Your task to perform on an android device: Search for Italian restaurants on Maps Image 0: 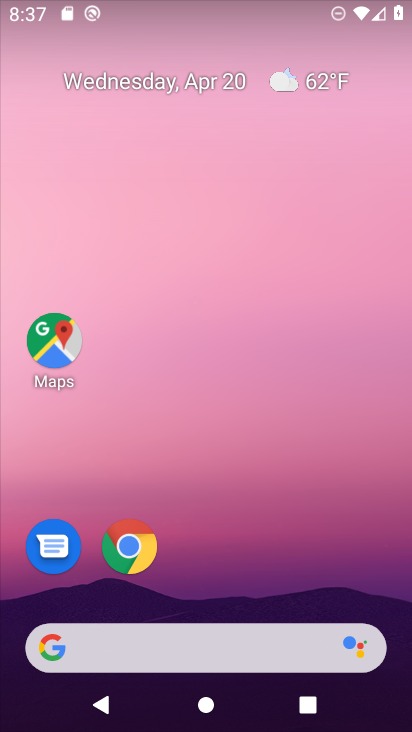
Step 0: click (57, 342)
Your task to perform on an android device: Search for Italian restaurants on Maps Image 1: 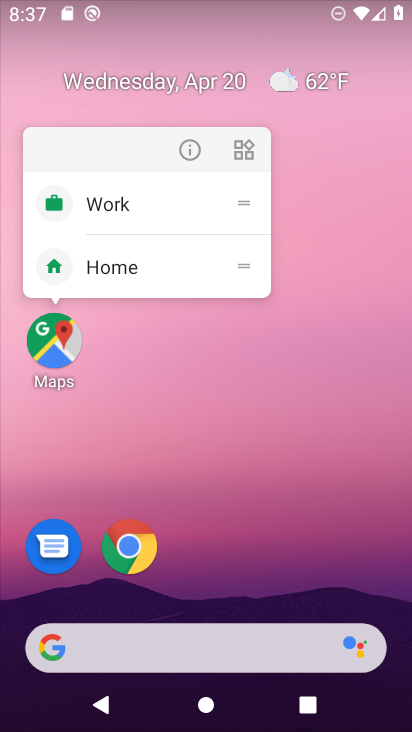
Step 1: click (57, 342)
Your task to perform on an android device: Search for Italian restaurants on Maps Image 2: 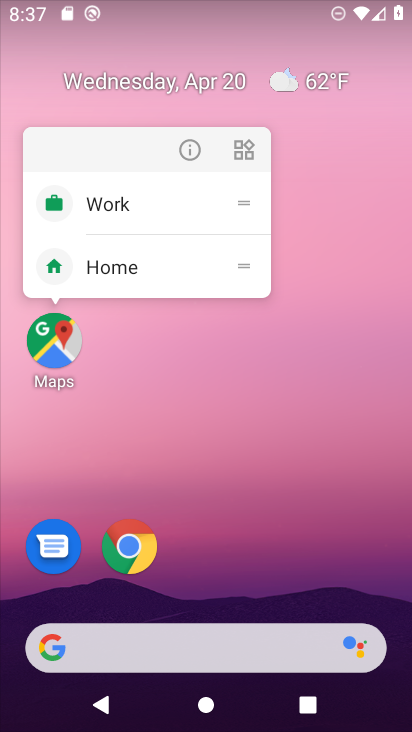
Step 2: click (57, 342)
Your task to perform on an android device: Search for Italian restaurants on Maps Image 3: 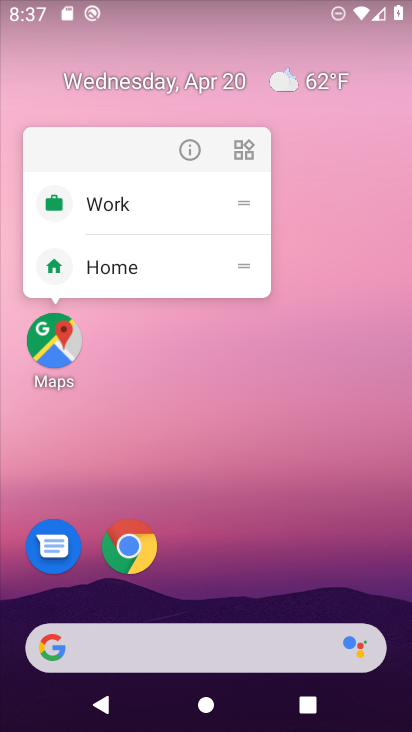
Step 3: click (51, 329)
Your task to perform on an android device: Search for Italian restaurants on Maps Image 4: 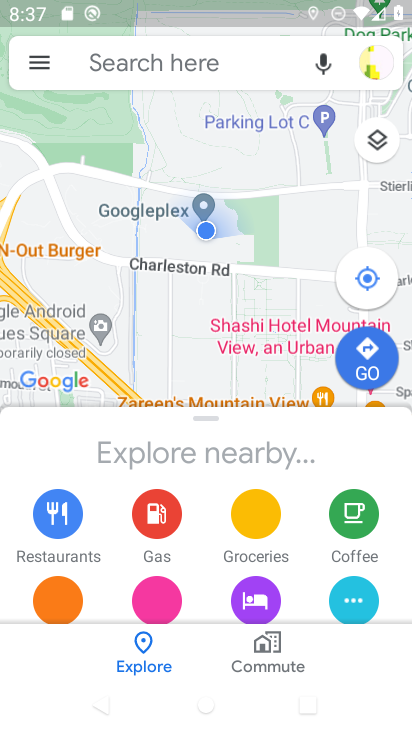
Step 4: click (184, 49)
Your task to perform on an android device: Search for Italian restaurants on Maps Image 5: 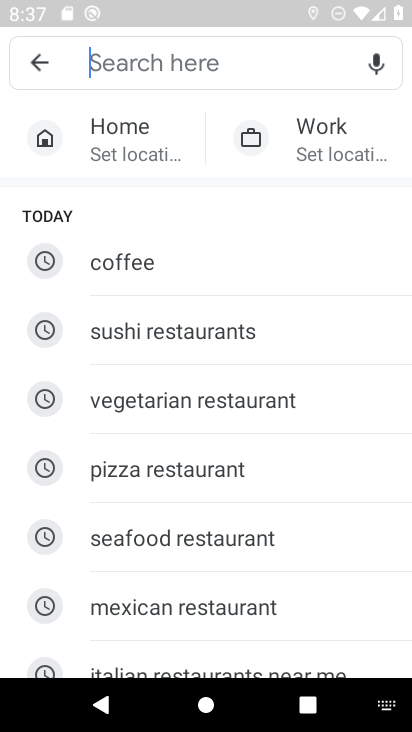
Step 5: drag from (179, 501) to (213, 333)
Your task to perform on an android device: Search for Italian restaurants on Maps Image 6: 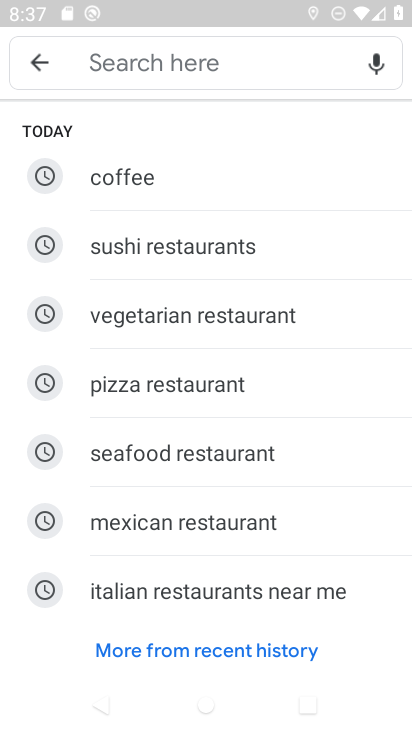
Step 6: click (219, 56)
Your task to perform on an android device: Search for Italian restaurants on Maps Image 7: 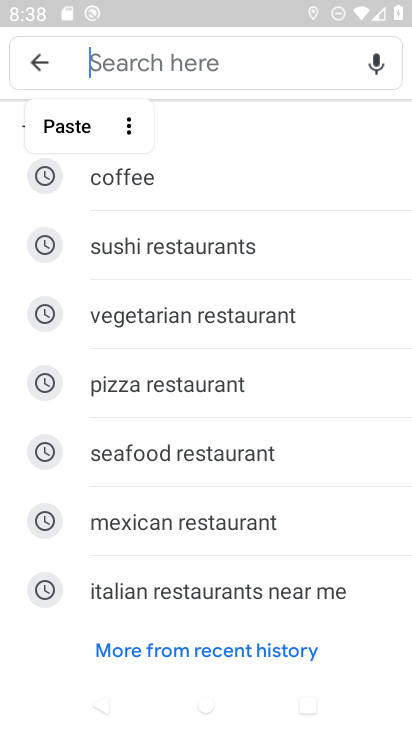
Step 7: type "Italian restaurants"
Your task to perform on an android device: Search for Italian restaurants on Maps Image 8: 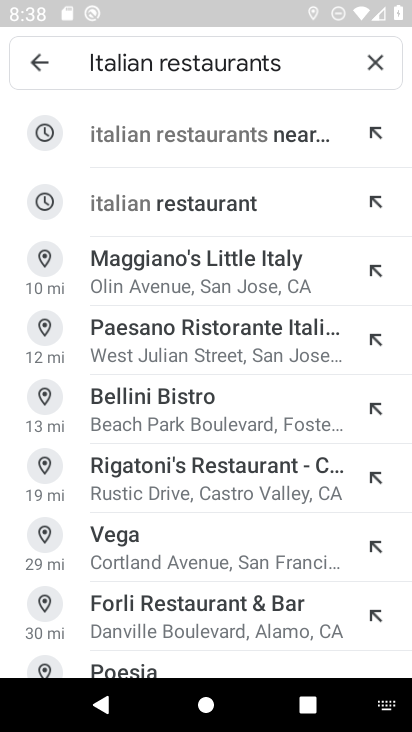
Step 8: click (206, 190)
Your task to perform on an android device: Search for Italian restaurants on Maps Image 9: 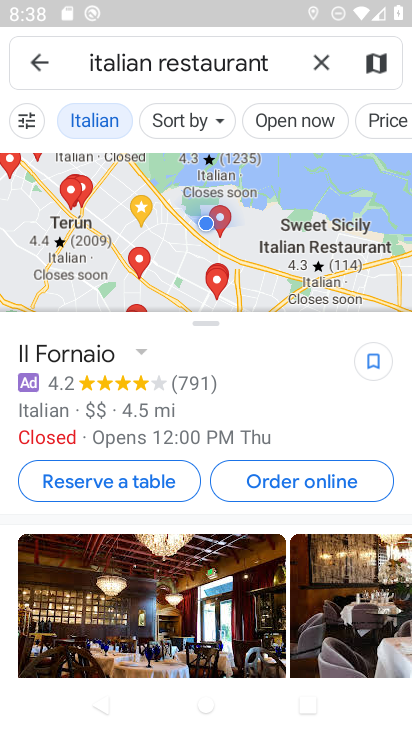
Step 9: task complete